Your task to perform on an android device: turn on translation in the chrome app Image 0: 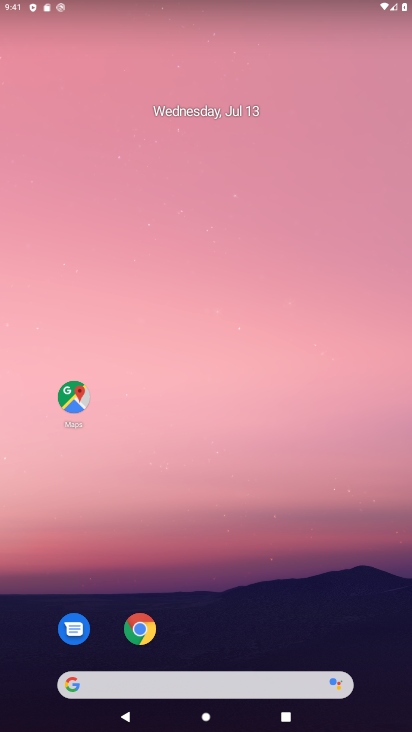
Step 0: click (247, 573)
Your task to perform on an android device: turn on translation in the chrome app Image 1: 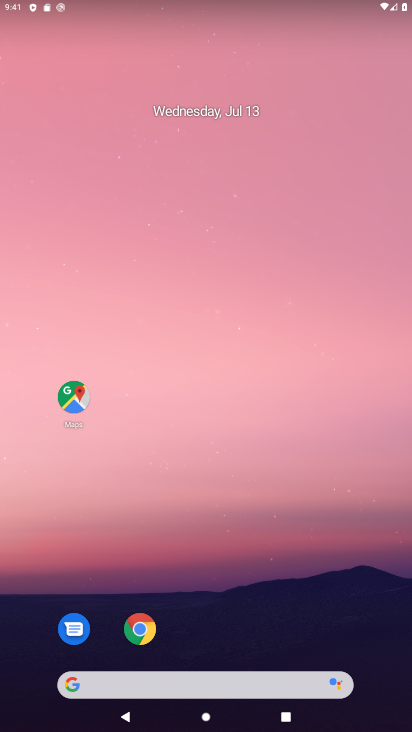
Step 1: click (140, 626)
Your task to perform on an android device: turn on translation in the chrome app Image 2: 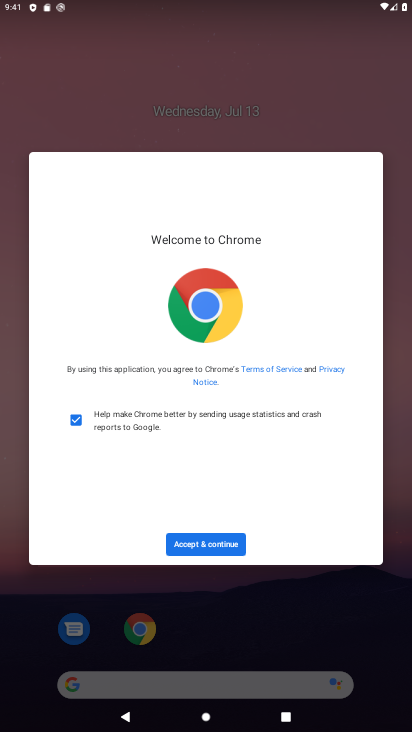
Step 2: click (214, 543)
Your task to perform on an android device: turn on translation in the chrome app Image 3: 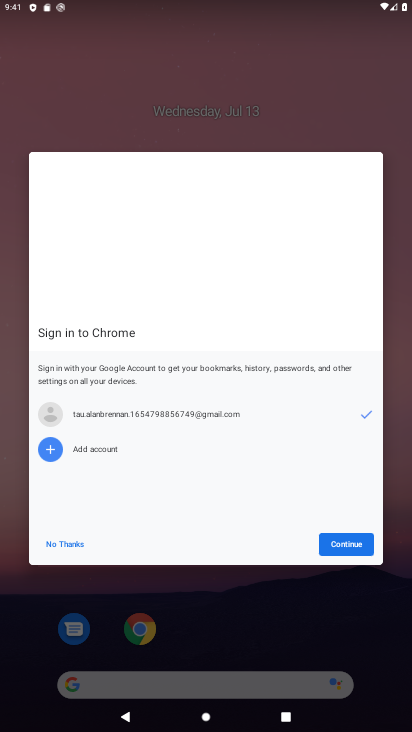
Step 3: click (344, 546)
Your task to perform on an android device: turn on translation in the chrome app Image 4: 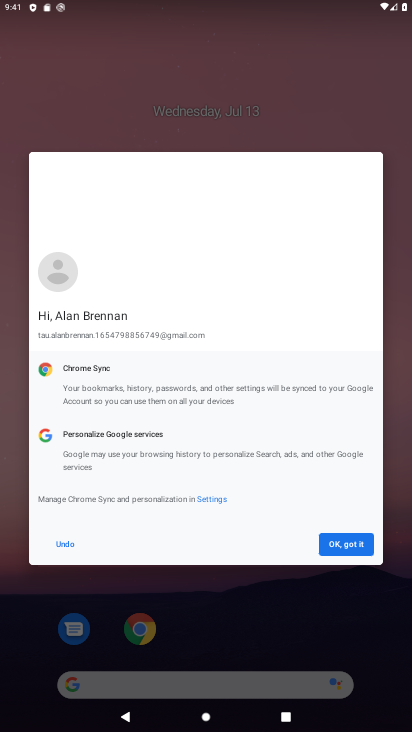
Step 4: click (347, 546)
Your task to perform on an android device: turn on translation in the chrome app Image 5: 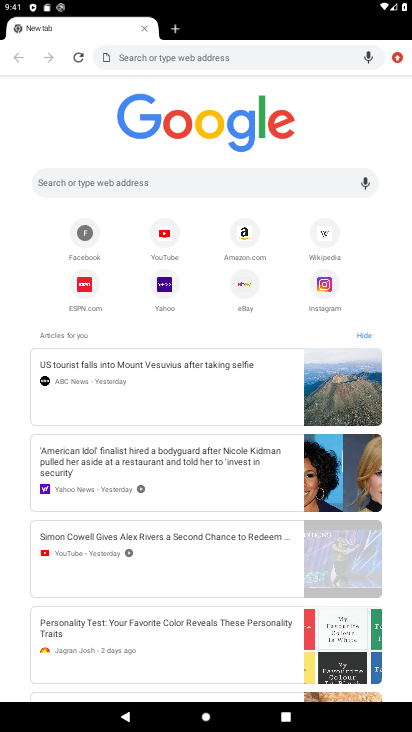
Step 5: click (396, 52)
Your task to perform on an android device: turn on translation in the chrome app Image 6: 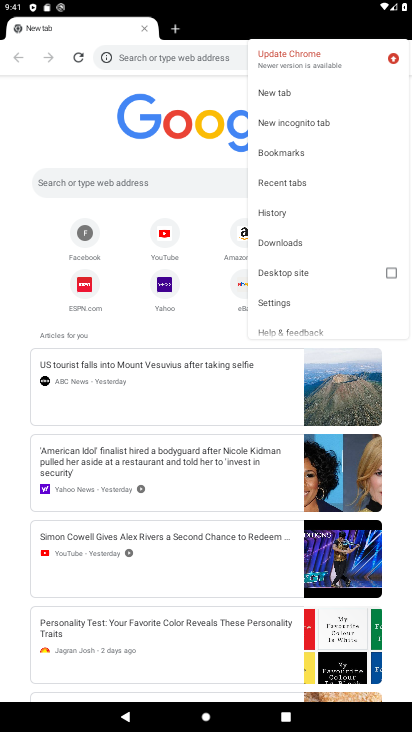
Step 6: click (290, 304)
Your task to perform on an android device: turn on translation in the chrome app Image 7: 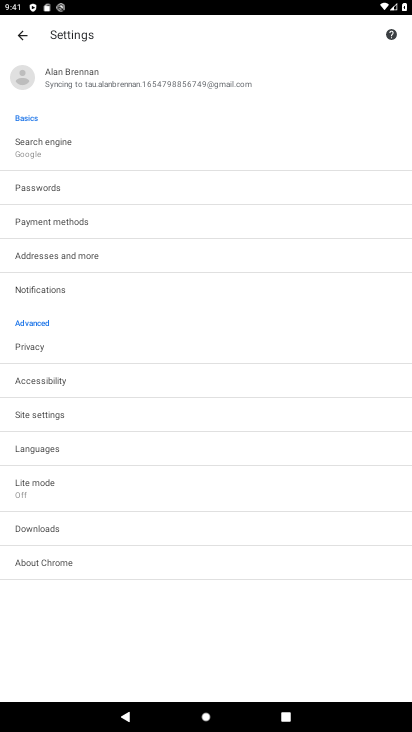
Step 7: click (78, 445)
Your task to perform on an android device: turn on translation in the chrome app Image 8: 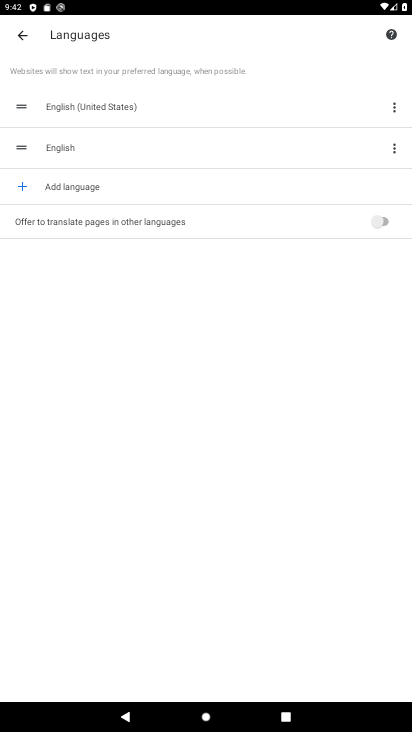
Step 8: click (382, 225)
Your task to perform on an android device: turn on translation in the chrome app Image 9: 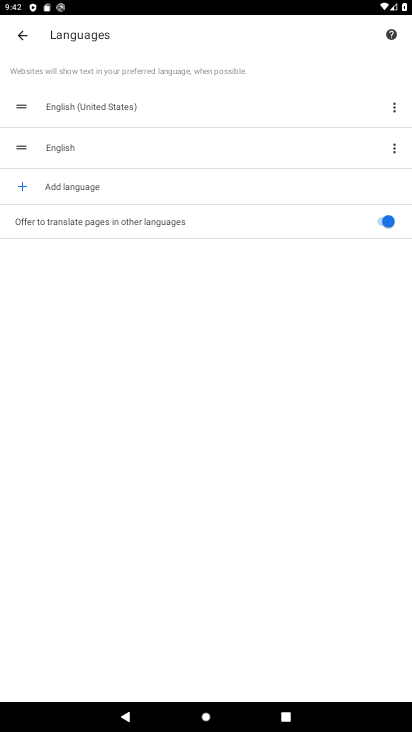
Step 9: task complete